Your task to perform on an android device: turn smart compose on in the gmail app Image 0: 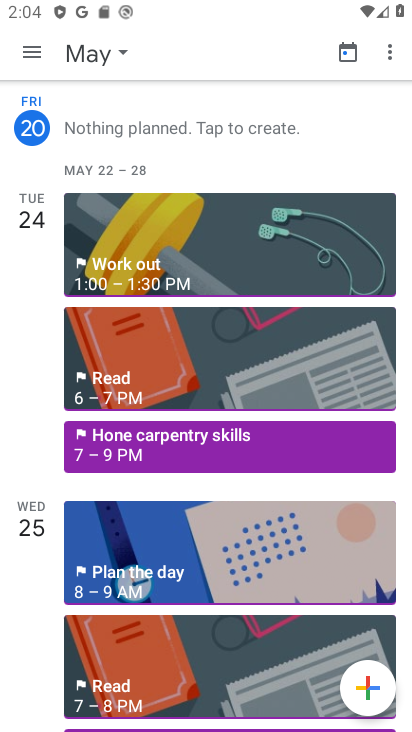
Step 0: press home button
Your task to perform on an android device: turn smart compose on in the gmail app Image 1: 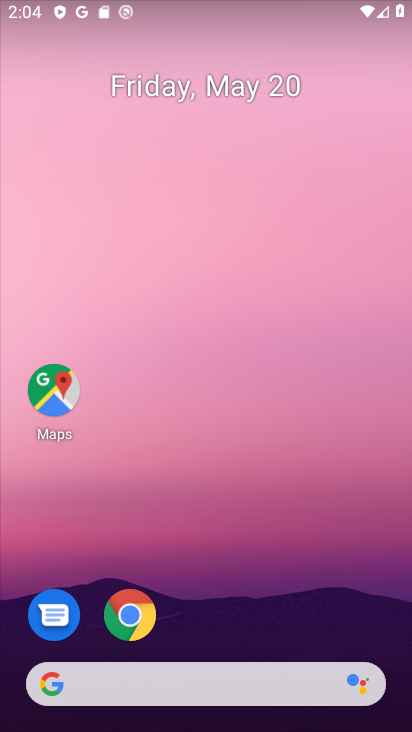
Step 1: drag from (235, 614) to (318, 23)
Your task to perform on an android device: turn smart compose on in the gmail app Image 2: 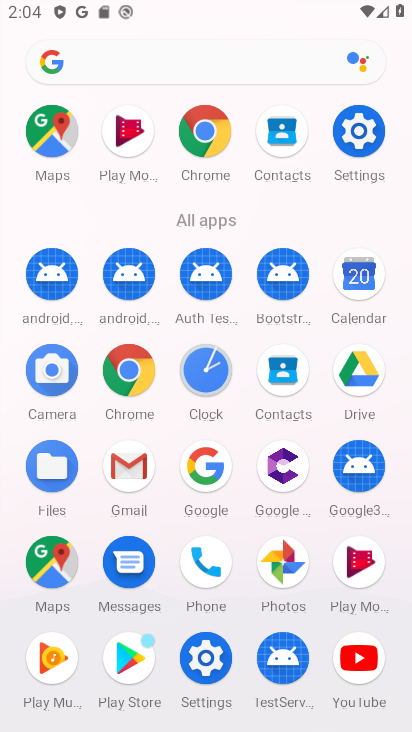
Step 2: click (136, 467)
Your task to perform on an android device: turn smart compose on in the gmail app Image 3: 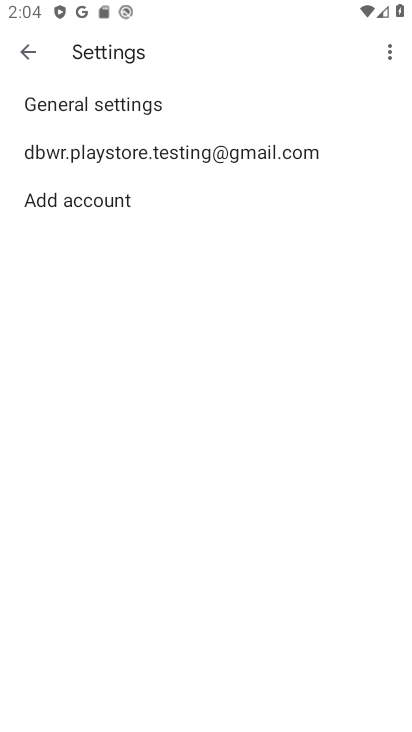
Step 3: click (297, 156)
Your task to perform on an android device: turn smart compose on in the gmail app Image 4: 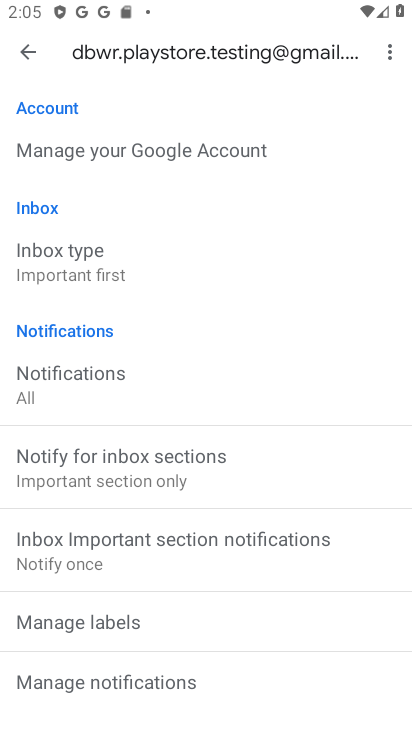
Step 4: task complete